Your task to perform on an android device: How do I get to the nearest Verizon Store? Image 0: 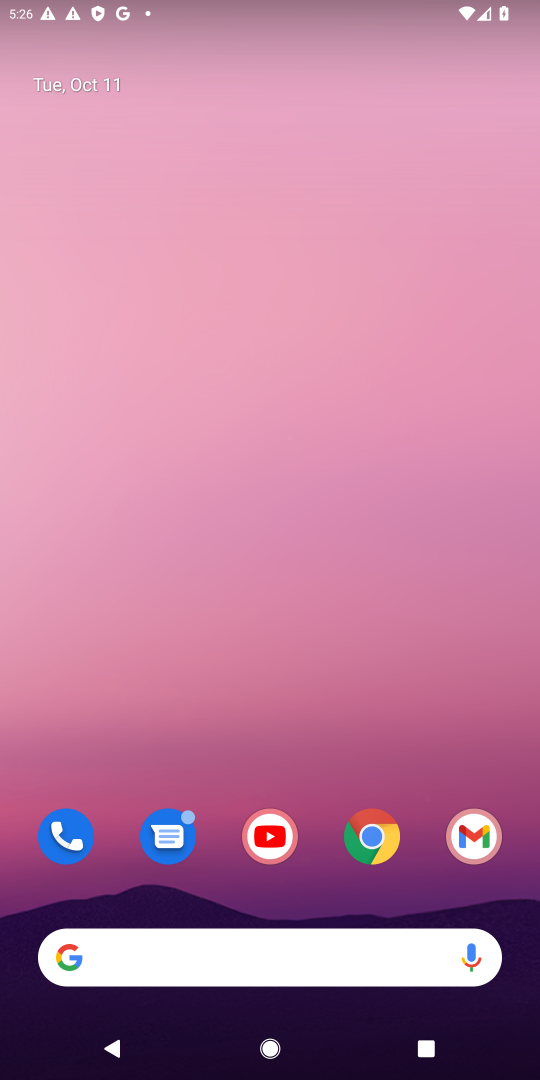
Step 0: click (374, 837)
Your task to perform on an android device: How do I get to the nearest Verizon Store? Image 1: 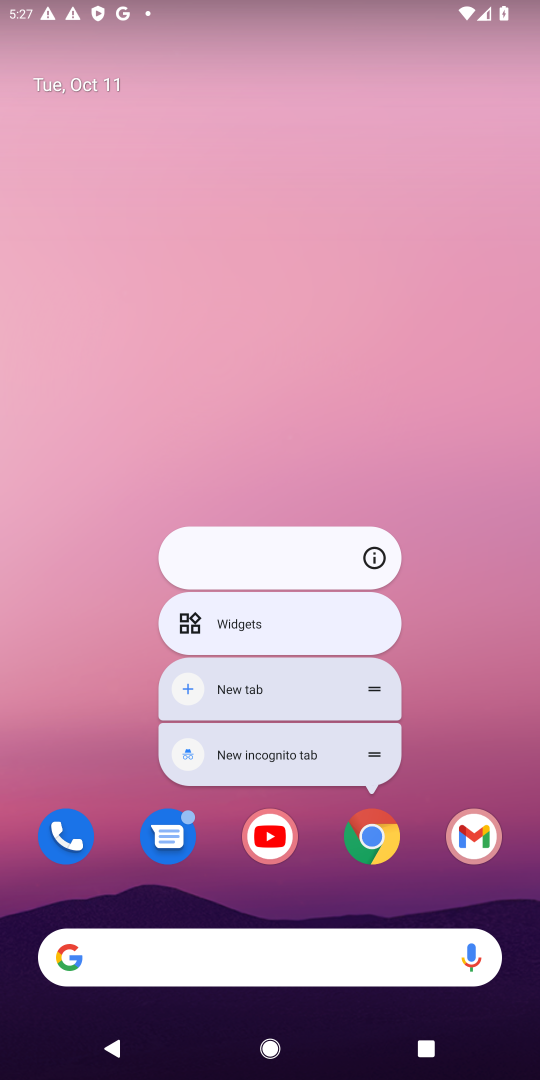
Step 1: click (374, 837)
Your task to perform on an android device: How do I get to the nearest Verizon Store? Image 2: 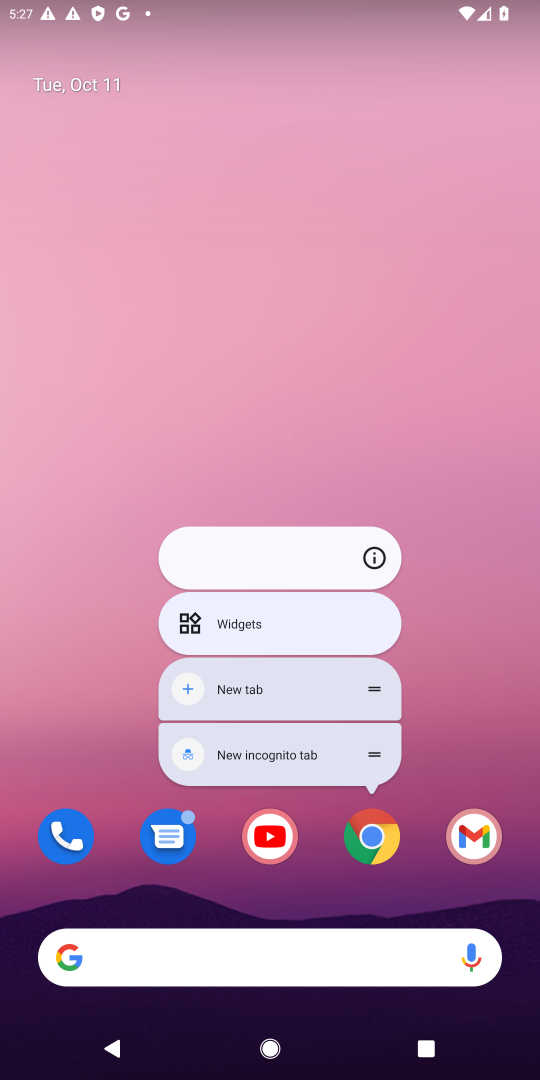
Step 2: click (367, 851)
Your task to perform on an android device: How do I get to the nearest Verizon Store? Image 3: 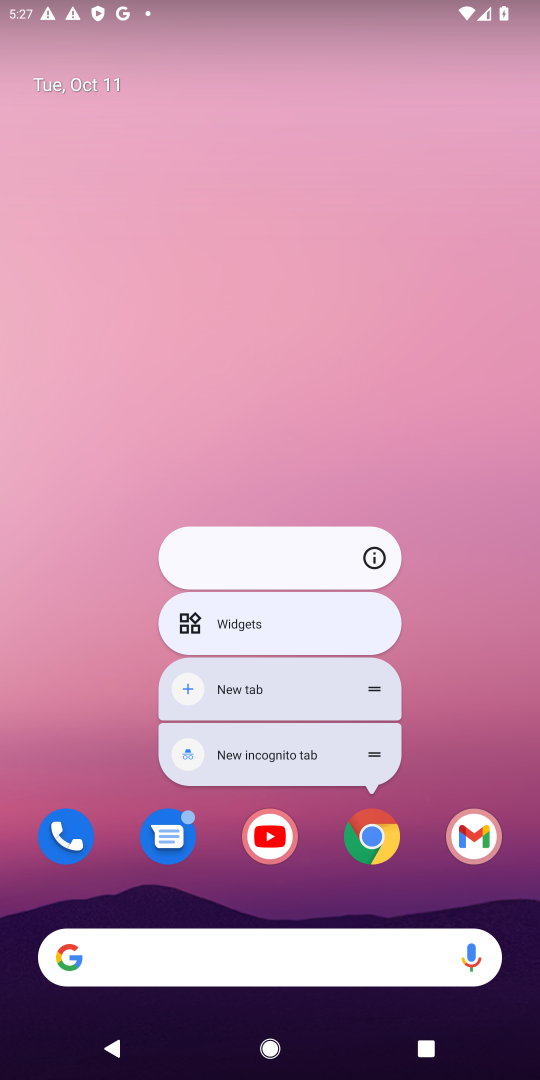
Step 3: click (374, 844)
Your task to perform on an android device: How do I get to the nearest Verizon Store? Image 4: 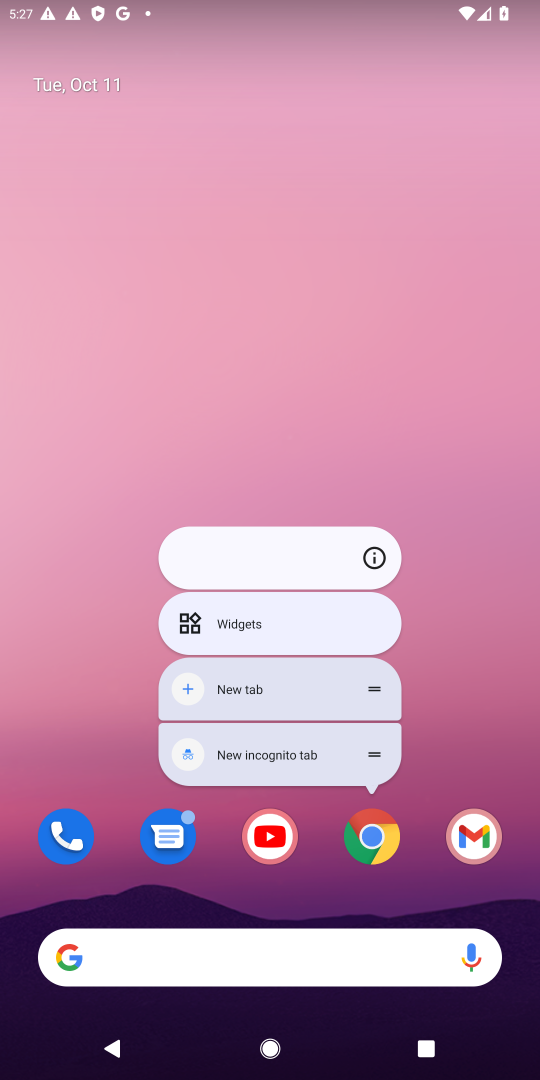
Step 4: click (379, 830)
Your task to perform on an android device: How do I get to the nearest Verizon Store? Image 5: 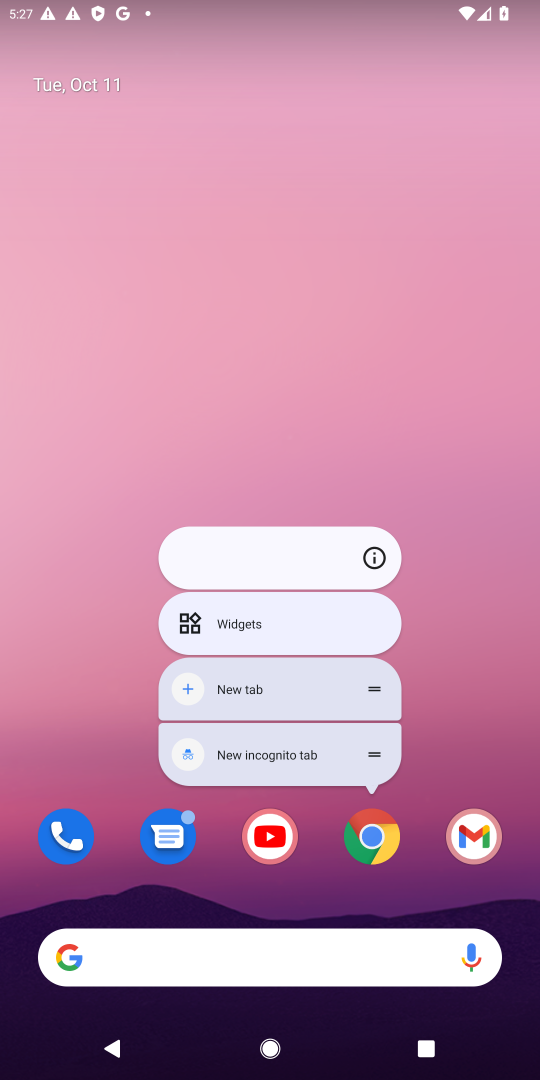
Step 5: click (379, 830)
Your task to perform on an android device: How do I get to the nearest Verizon Store? Image 6: 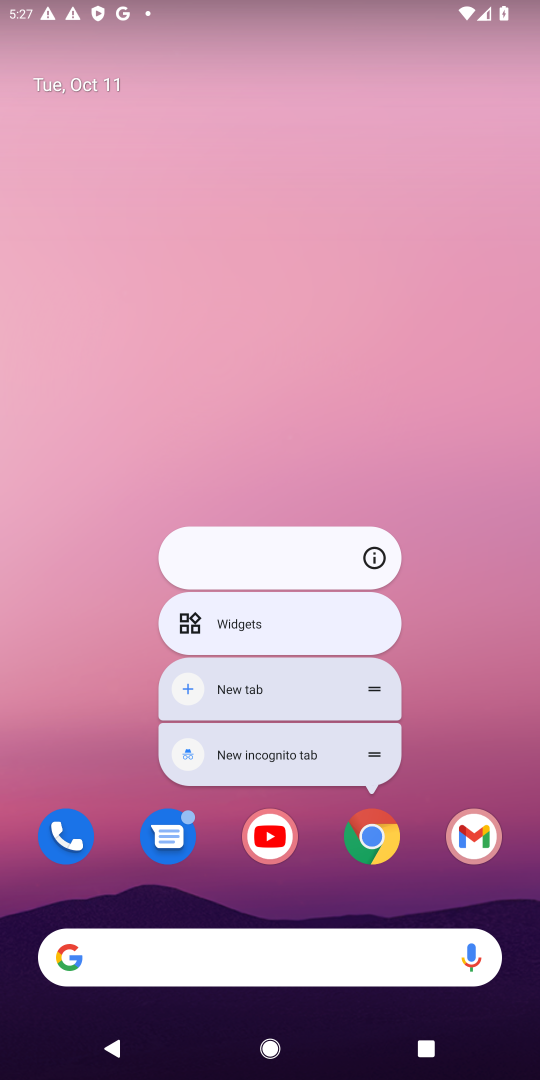
Step 6: click (379, 847)
Your task to perform on an android device: How do I get to the nearest Verizon Store? Image 7: 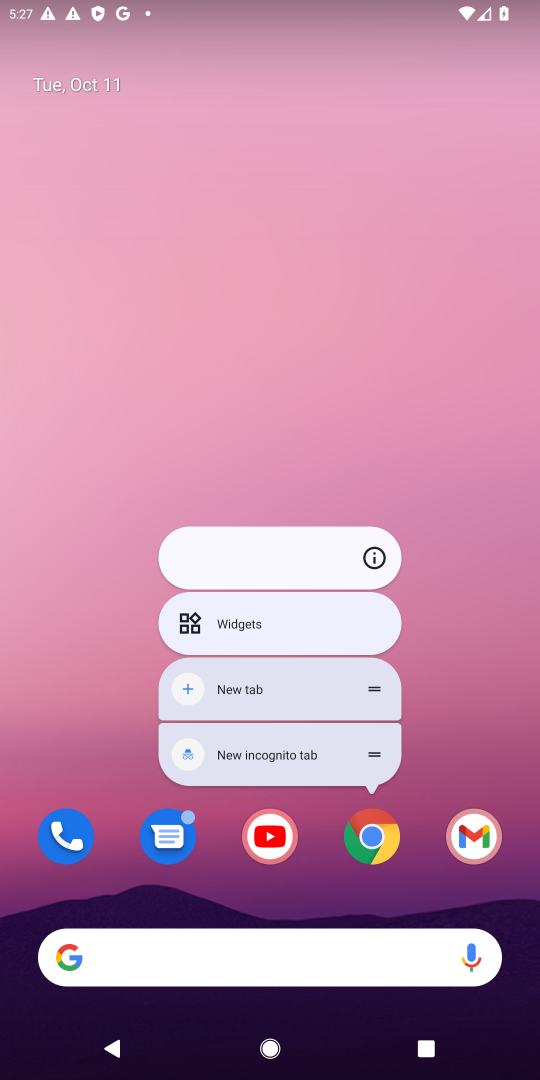
Step 7: click (379, 847)
Your task to perform on an android device: How do I get to the nearest Verizon Store? Image 8: 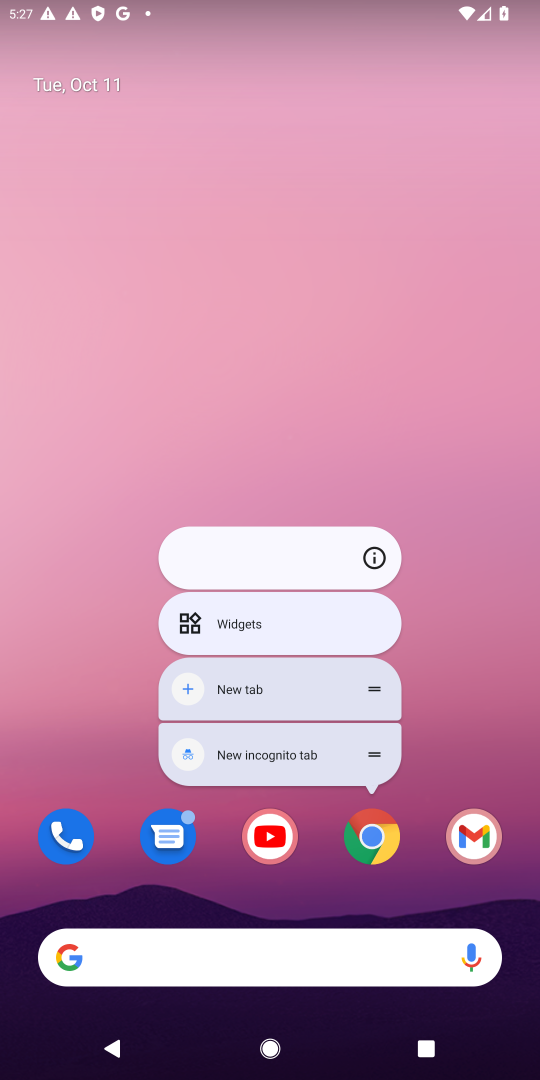
Step 8: click (379, 847)
Your task to perform on an android device: How do I get to the nearest Verizon Store? Image 9: 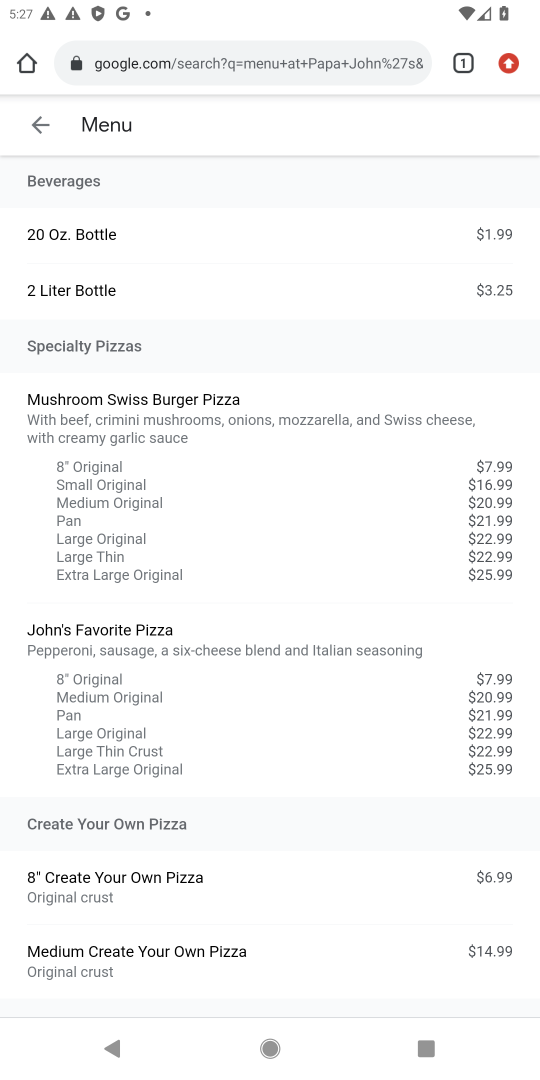
Step 9: click (377, 57)
Your task to perform on an android device: How do I get to the nearest Verizon Store? Image 10: 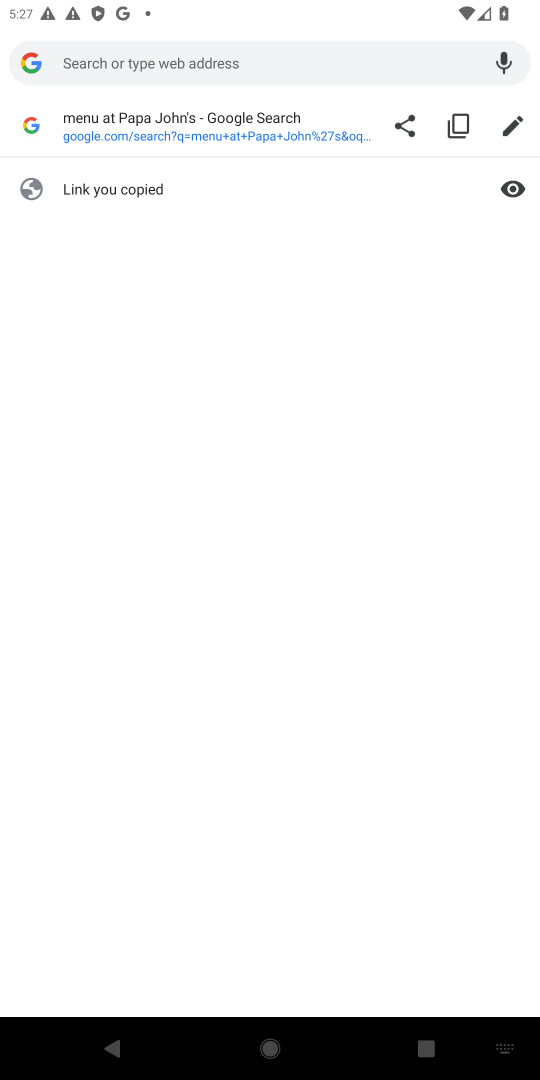
Step 10: type "nearest Verizon Store"
Your task to perform on an android device: How do I get to the nearest Verizon Store? Image 11: 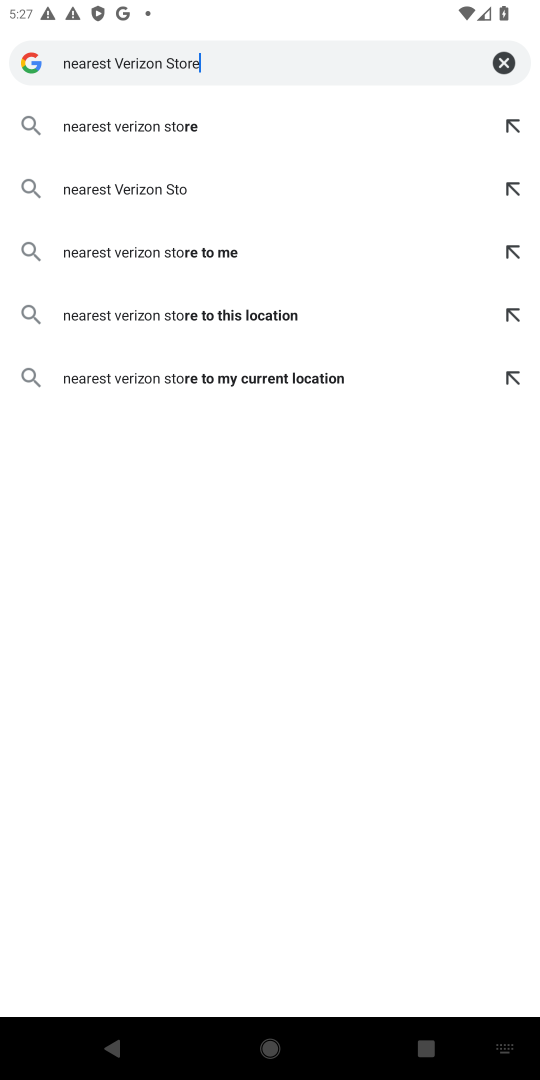
Step 11: press enter
Your task to perform on an android device: How do I get to the nearest Verizon Store? Image 12: 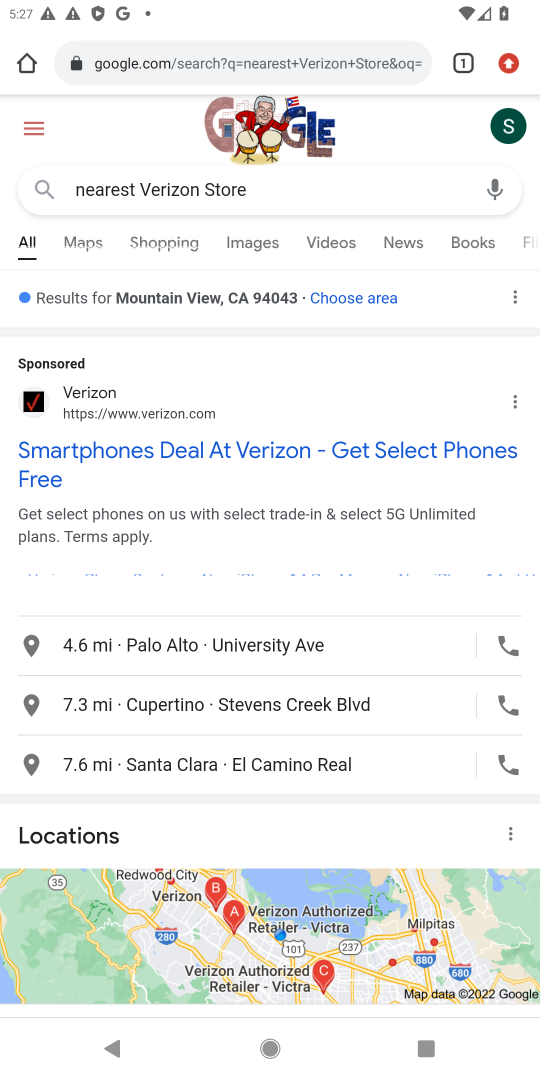
Step 12: drag from (151, 916) to (331, 406)
Your task to perform on an android device: How do I get to the nearest Verizon Store? Image 13: 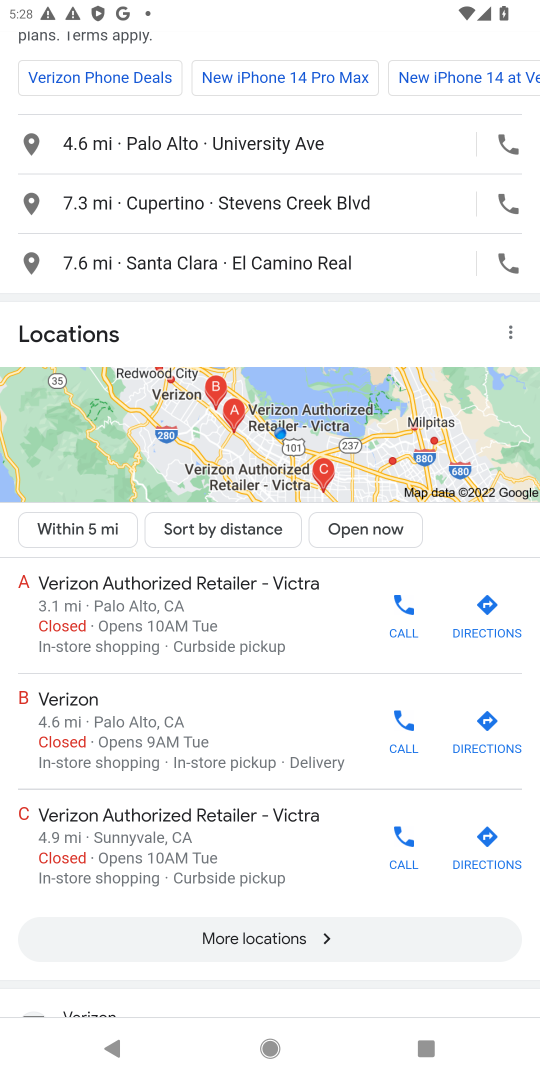
Step 13: click (189, 616)
Your task to perform on an android device: How do I get to the nearest Verizon Store? Image 14: 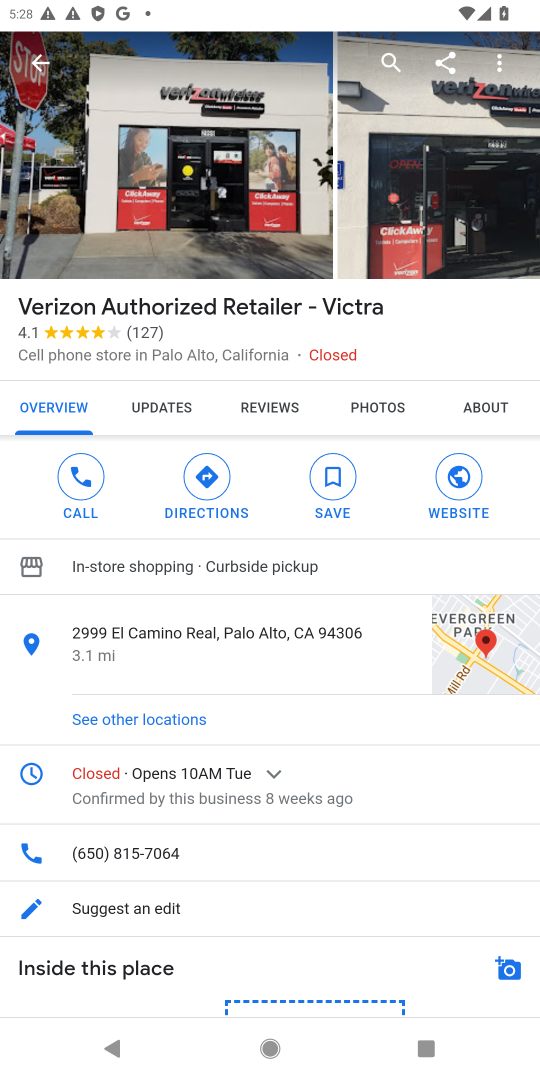
Step 14: task complete